Your task to perform on an android device: toggle notification dots Image 0: 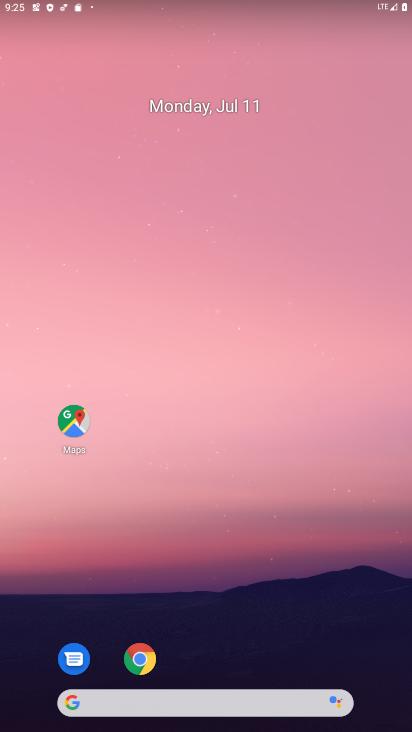
Step 0: click (212, 703)
Your task to perform on an android device: toggle notification dots Image 1: 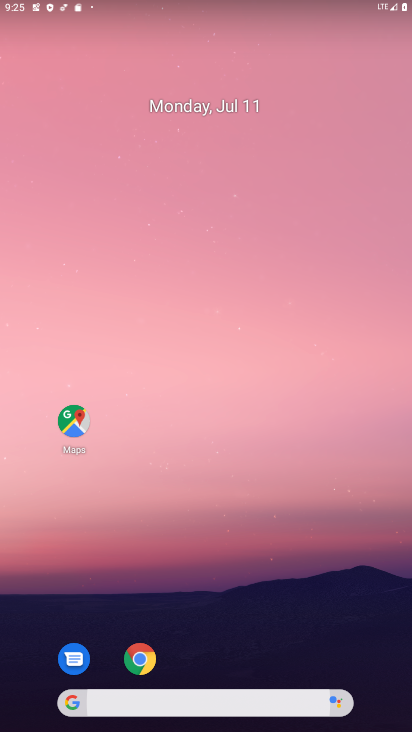
Step 1: click (213, 135)
Your task to perform on an android device: toggle notification dots Image 2: 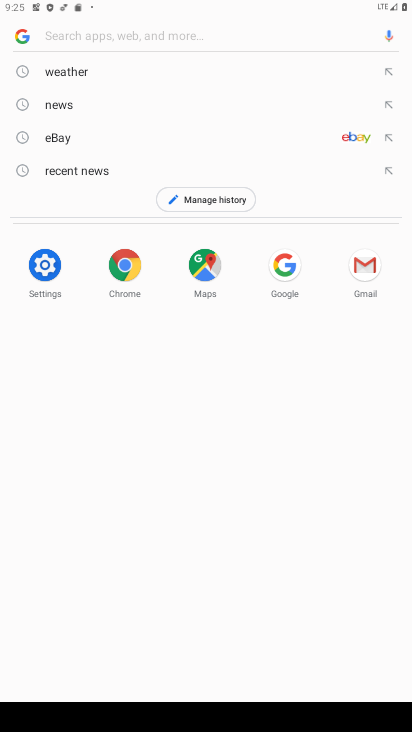
Step 2: press home button
Your task to perform on an android device: toggle notification dots Image 3: 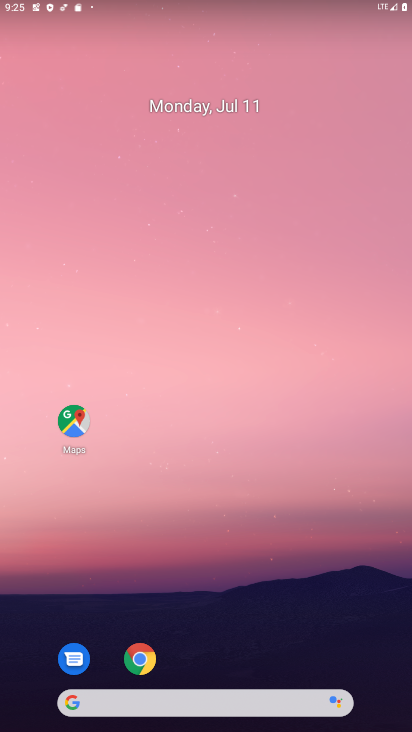
Step 3: drag from (239, 693) to (216, 79)
Your task to perform on an android device: toggle notification dots Image 4: 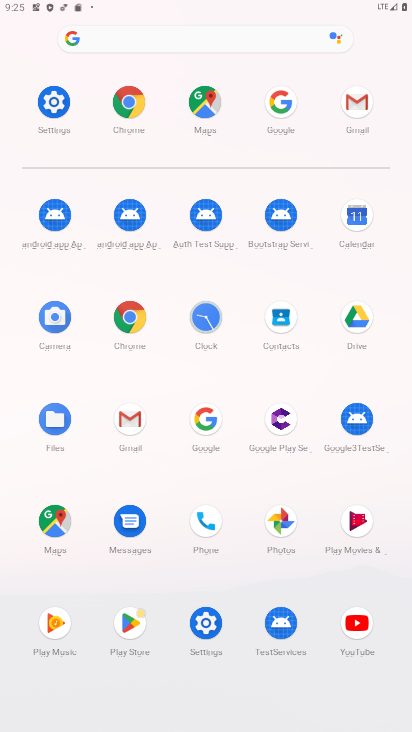
Step 4: click (52, 100)
Your task to perform on an android device: toggle notification dots Image 5: 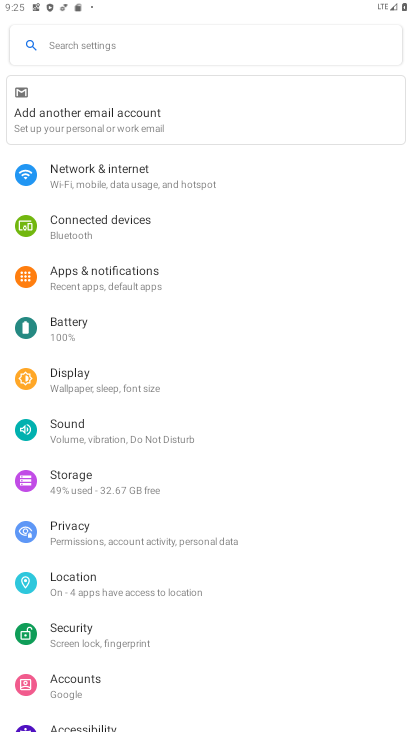
Step 5: click (114, 281)
Your task to perform on an android device: toggle notification dots Image 6: 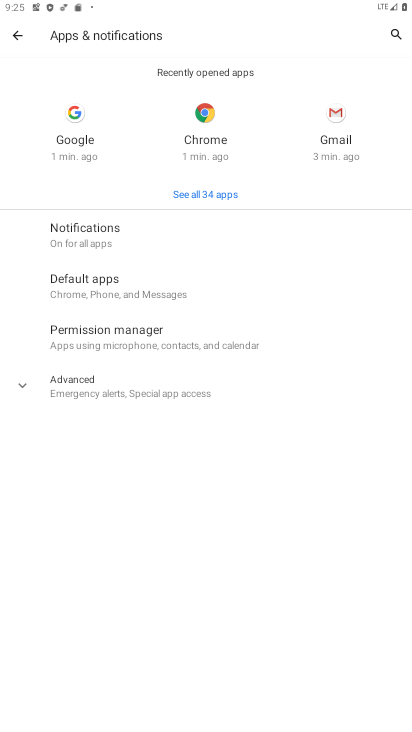
Step 6: click (84, 230)
Your task to perform on an android device: toggle notification dots Image 7: 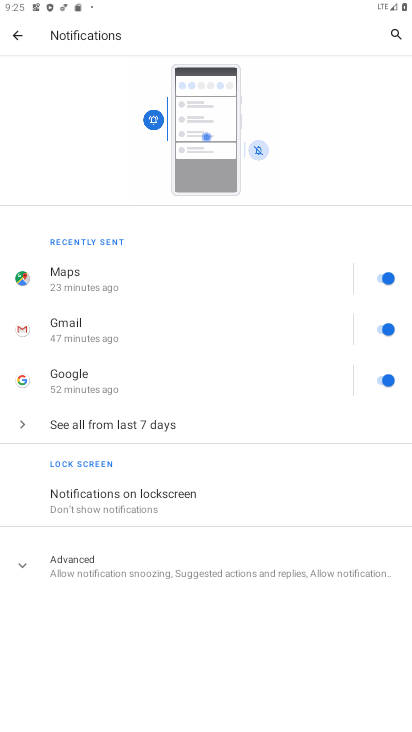
Step 7: click (140, 573)
Your task to perform on an android device: toggle notification dots Image 8: 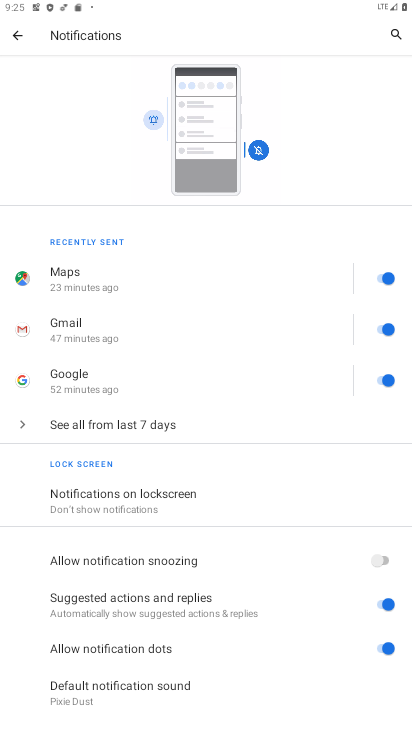
Step 8: click (391, 647)
Your task to perform on an android device: toggle notification dots Image 9: 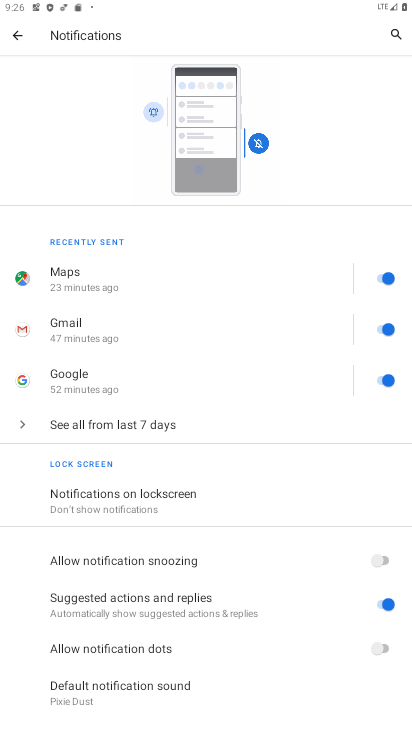
Step 9: task complete